Your task to perform on an android device: Open calendar and show me the second week of next month Image 0: 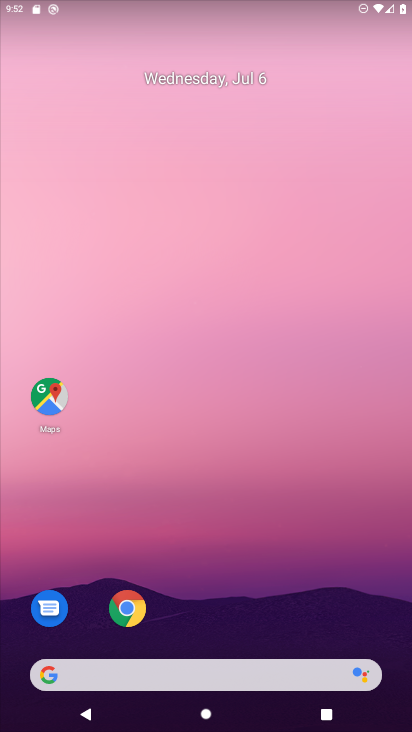
Step 0: click (120, 615)
Your task to perform on an android device: Open calendar and show me the second week of next month Image 1: 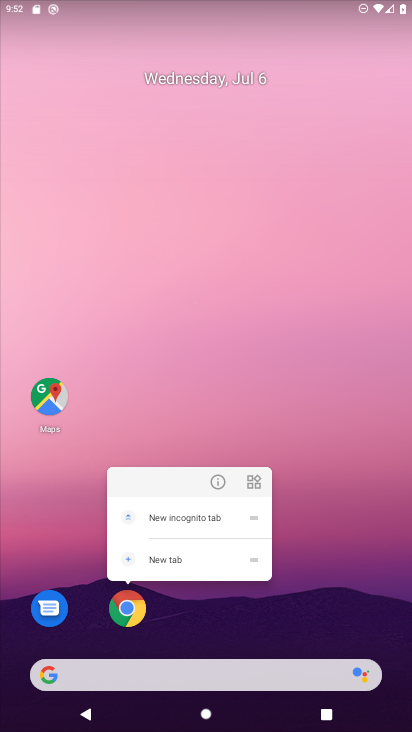
Step 1: drag from (188, 667) to (238, 199)
Your task to perform on an android device: Open calendar and show me the second week of next month Image 2: 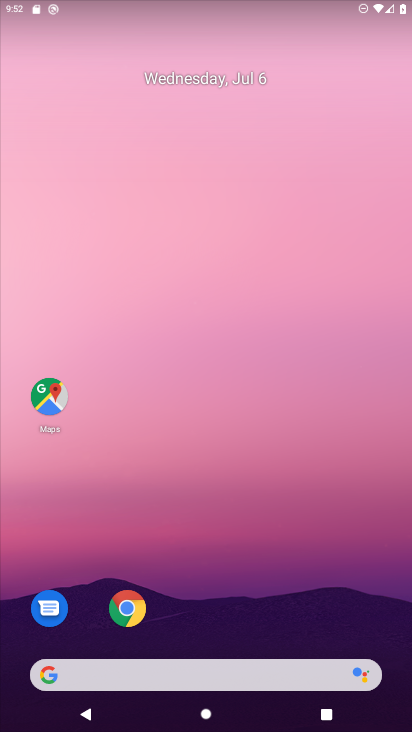
Step 2: drag from (213, 656) to (252, 213)
Your task to perform on an android device: Open calendar and show me the second week of next month Image 3: 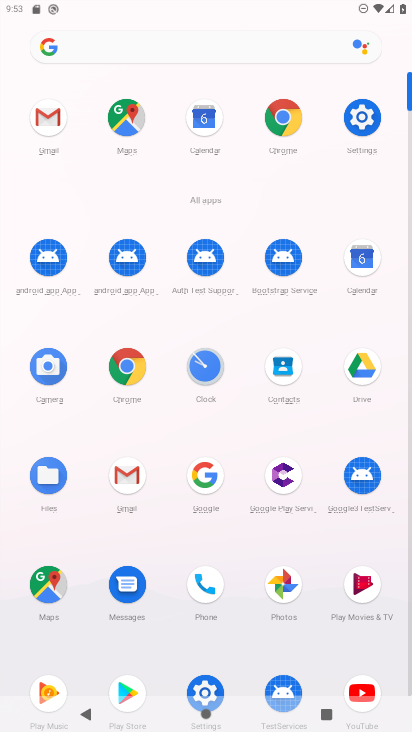
Step 3: click (369, 255)
Your task to perform on an android device: Open calendar and show me the second week of next month Image 4: 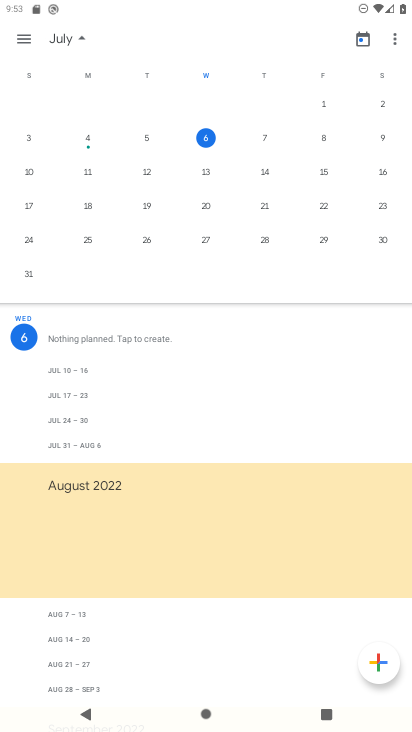
Step 4: drag from (374, 219) to (9, 216)
Your task to perform on an android device: Open calendar and show me the second week of next month Image 5: 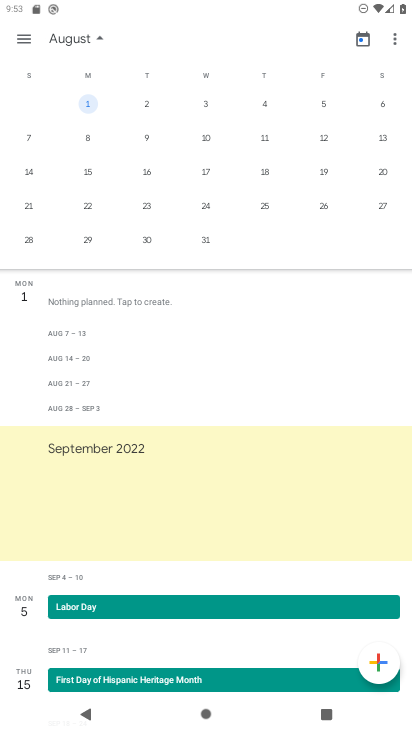
Step 5: click (25, 140)
Your task to perform on an android device: Open calendar and show me the second week of next month Image 6: 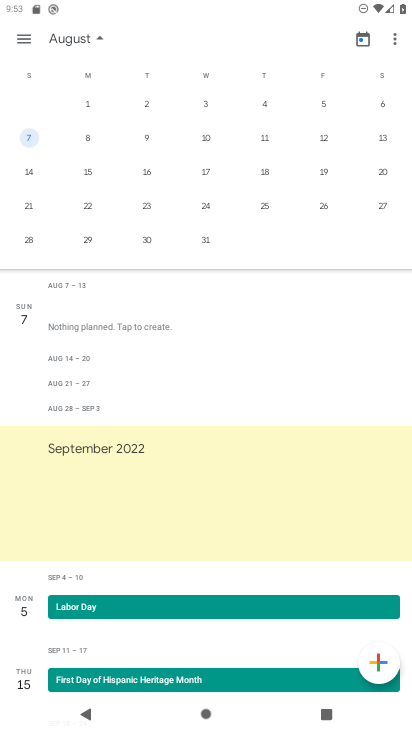
Step 6: task complete